Your task to perform on an android device: stop showing notifications on the lock screen Image 0: 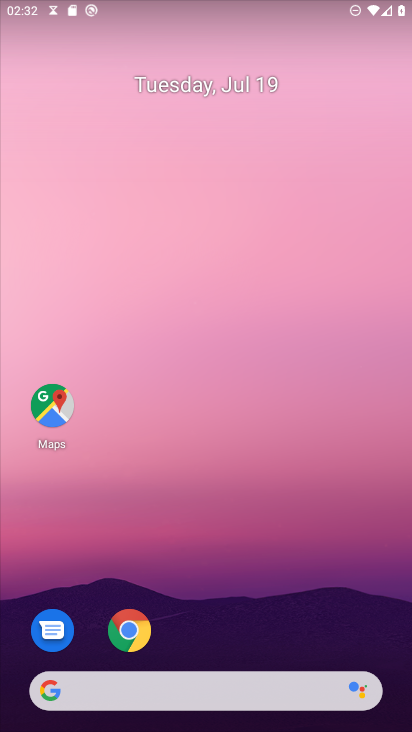
Step 0: click (328, 136)
Your task to perform on an android device: stop showing notifications on the lock screen Image 1: 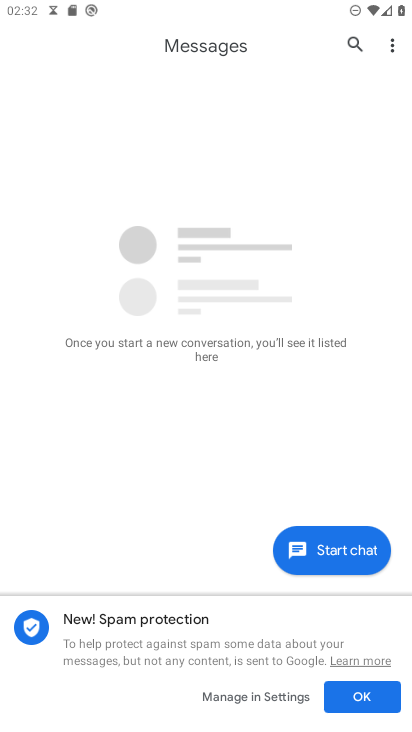
Step 1: press home button
Your task to perform on an android device: stop showing notifications on the lock screen Image 2: 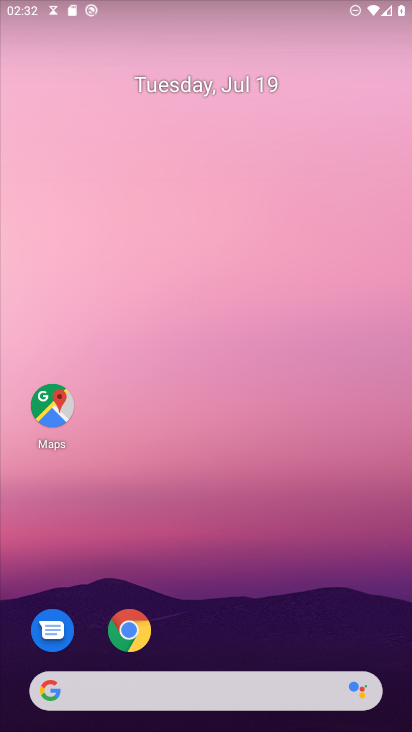
Step 2: drag from (207, 687) to (306, 139)
Your task to perform on an android device: stop showing notifications on the lock screen Image 3: 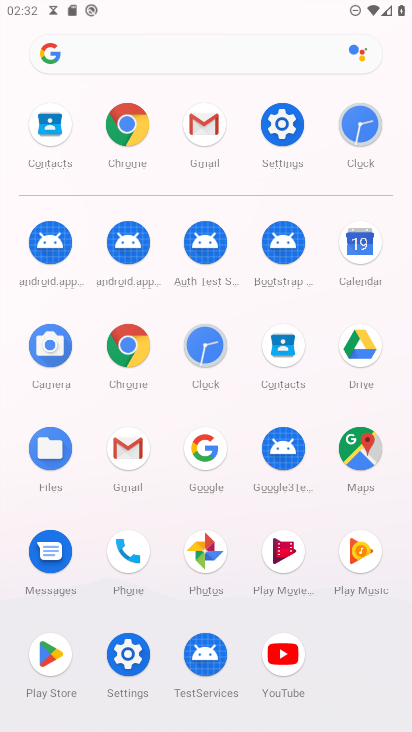
Step 3: click (282, 133)
Your task to perform on an android device: stop showing notifications on the lock screen Image 4: 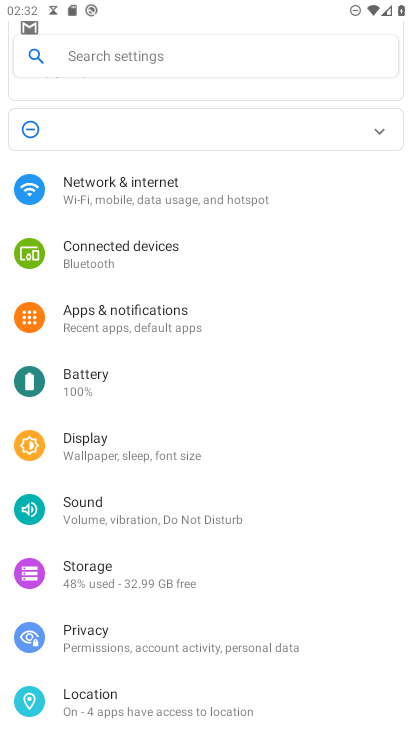
Step 4: click (132, 315)
Your task to perform on an android device: stop showing notifications on the lock screen Image 5: 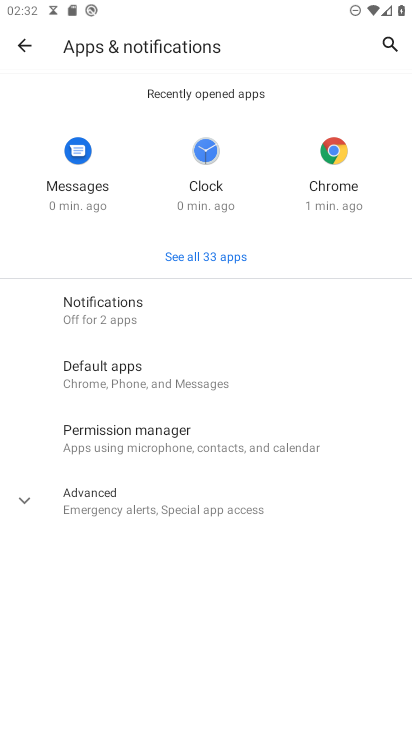
Step 5: click (118, 303)
Your task to perform on an android device: stop showing notifications on the lock screen Image 6: 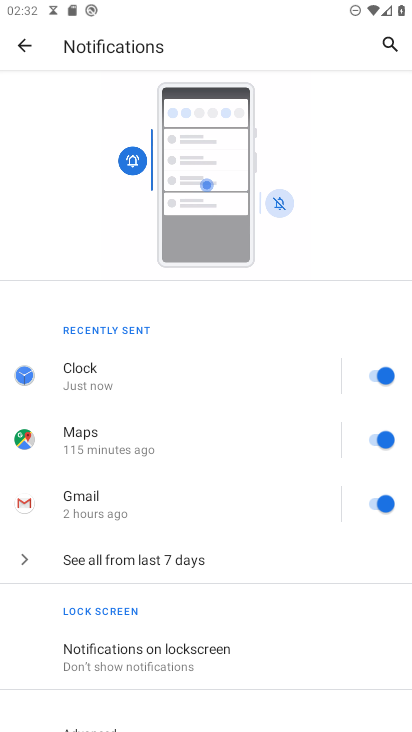
Step 6: click (196, 654)
Your task to perform on an android device: stop showing notifications on the lock screen Image 7: 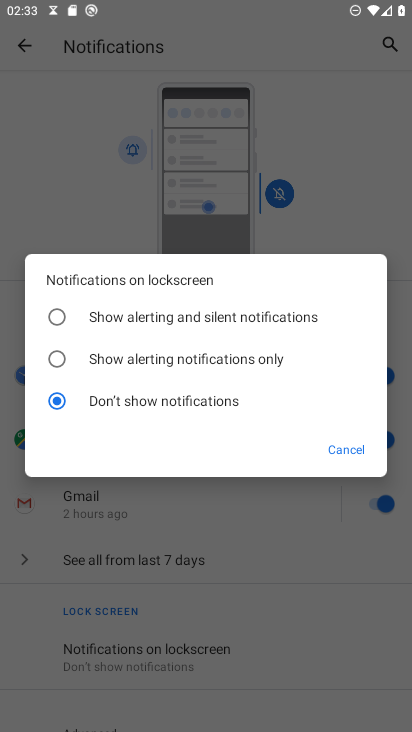
Step 7: task complete